Your task to perform on an android device: What's the weather? Image 0: 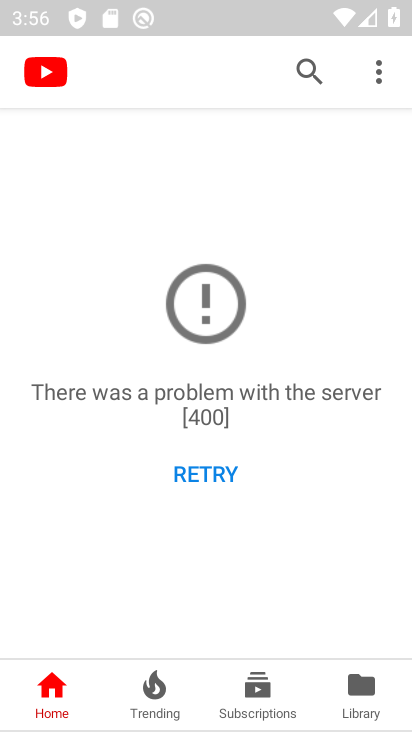
Step 0: press back button
Your task to perform on an android device: What's the weather? Image 1: 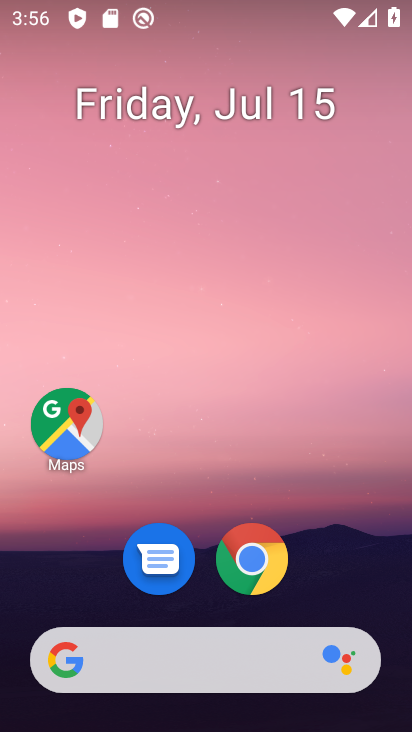
Step 1: drag from (104, 560) to (167, 27)
Your task to perform on an android device: What's the weather? Image 2: 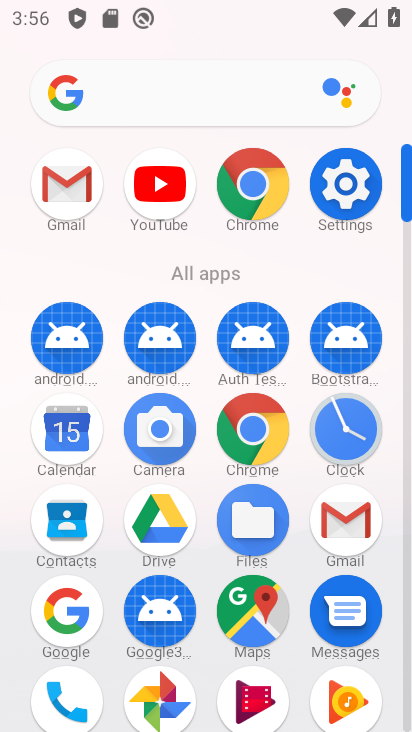
Step 2: click (155, 91)
Your task to perform on an android device: What's the weather? Image 3: 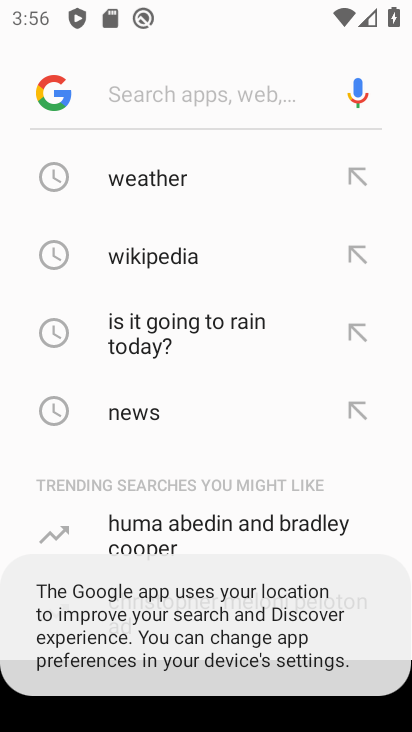
Step 3: click (110, 177)
Your task to perform on an android device: What's the weather? Image 4: 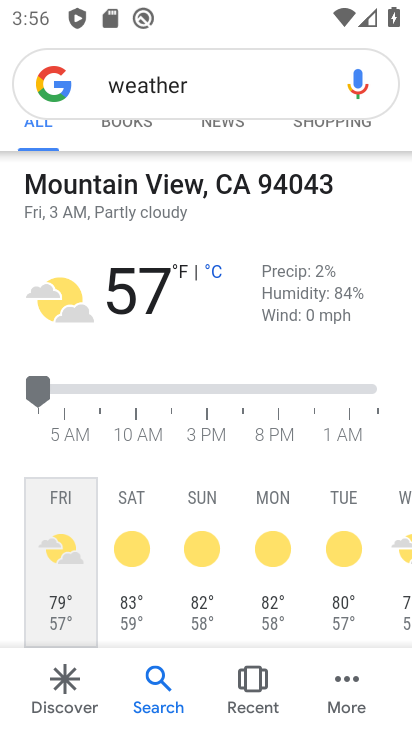
Step 4: task complete